Your task to perform on an android device: Open internet settings Image 0: 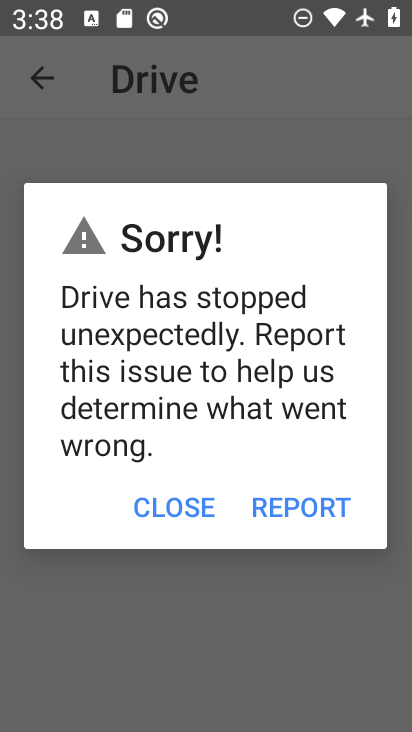
Step 0: press home button
Your task to perform on an android device: Open internet settings Image 1: 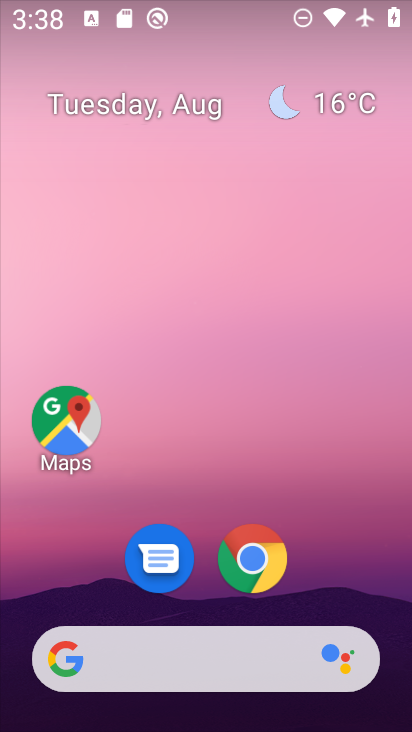
Step 1: drag from (187, 438) to (179, 139)
Your task to perform on an android device: Open internet settings Image 2: 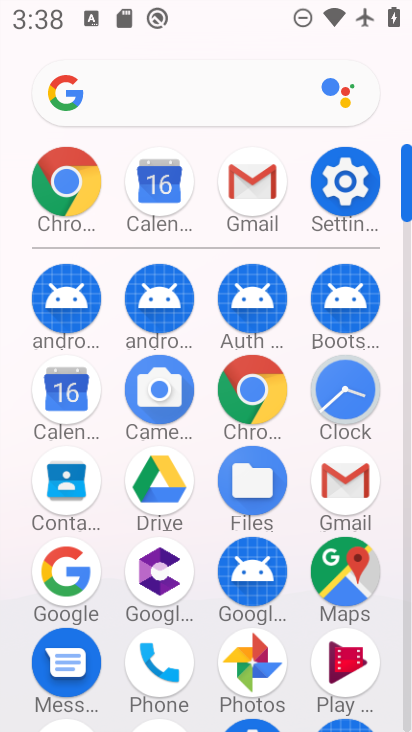
Step 2: click (343, 193)
Your task to perform on an android device: Open internet settings Image 3: 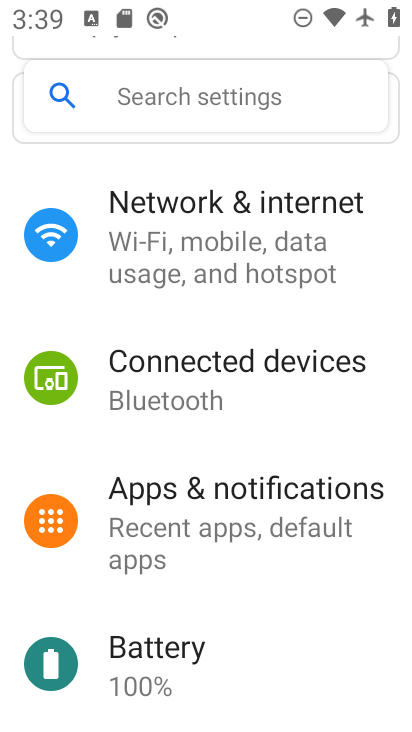
Step 3: click (206, 252)
Your task to perform on an android device: Open internet settings Image 4: 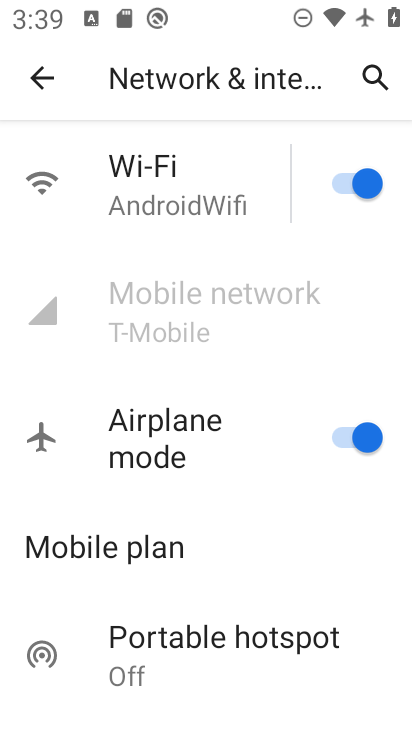
Step 4: task complete